Your task to perform on an android device: Open Maps and search for coffee Image 0: 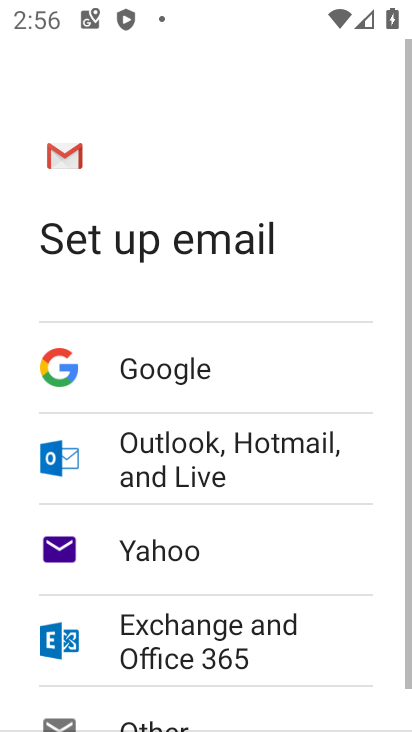
Step 0: press home button
Your task to perform on an android device: Open Maps and search for coffee Image 1: 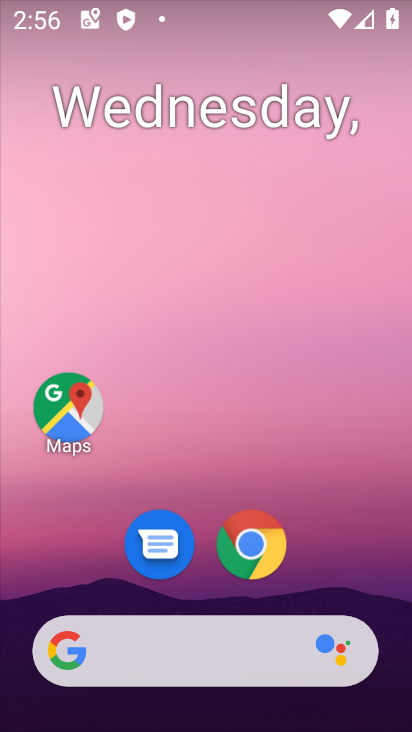
Step 1: drag from (376, 581) to (319, 179)
Your task to perform on an android device: Open Maps and search for coffee Image 2: 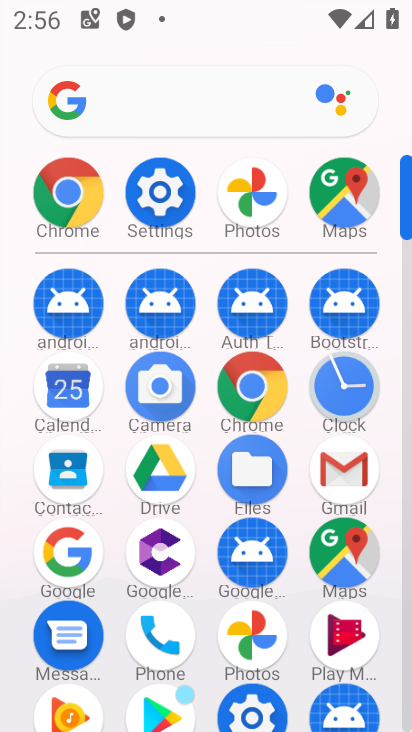
Step 2: click (351, 573)
Your task to perform on an android device: Open Maps and search for coffee Image 3: 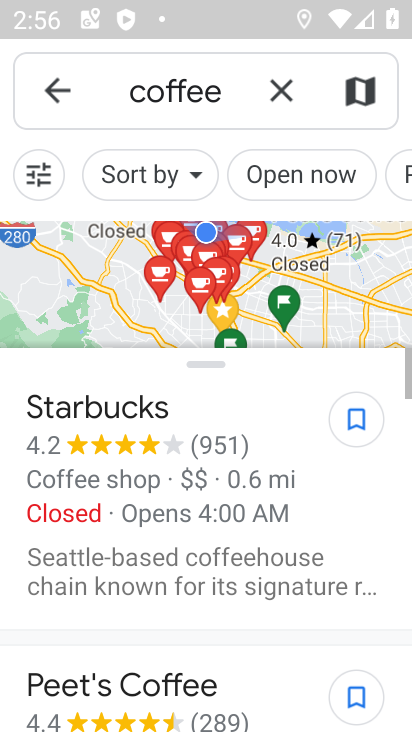
Step 3: task complete